Your task to perform on an android device: change the clock display to digital Image 0: 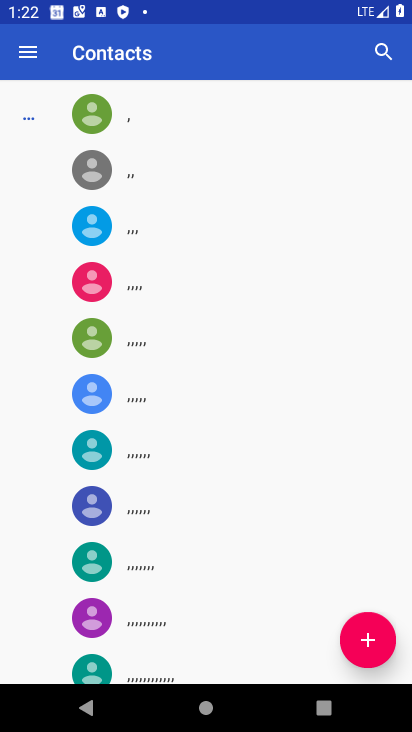
Step 0: press home button
Your task to perform on an android device: change the clock display to digital Image 1: 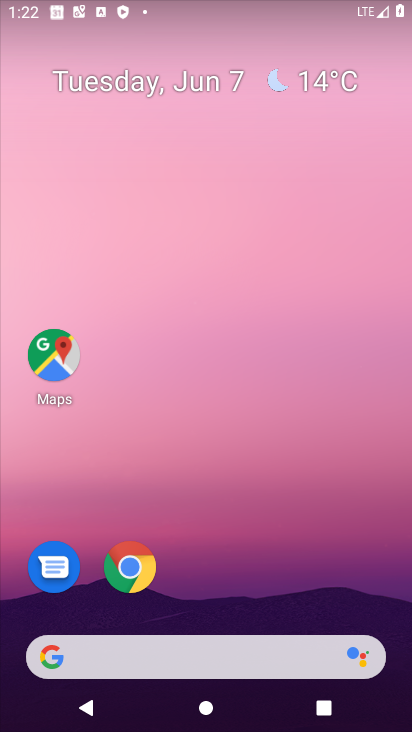
Step 1: drag from (188, 670) to (267, 5)
Your task to perform on an android device: change the clock display to digital Image 2: 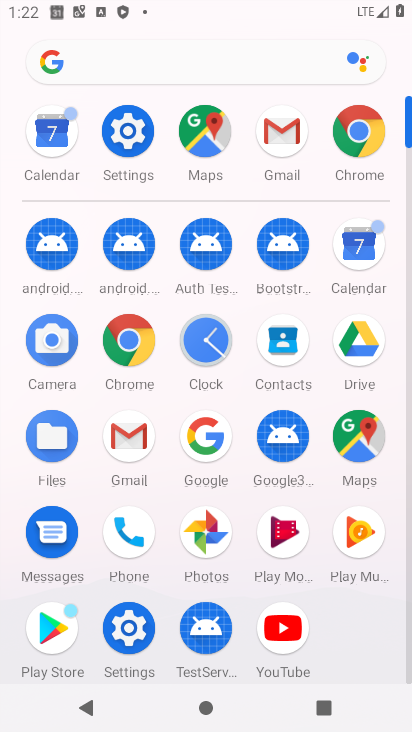
Step 2: click (193, 350)
Your task to perform on an android device: change the clock display to digital Image 3: 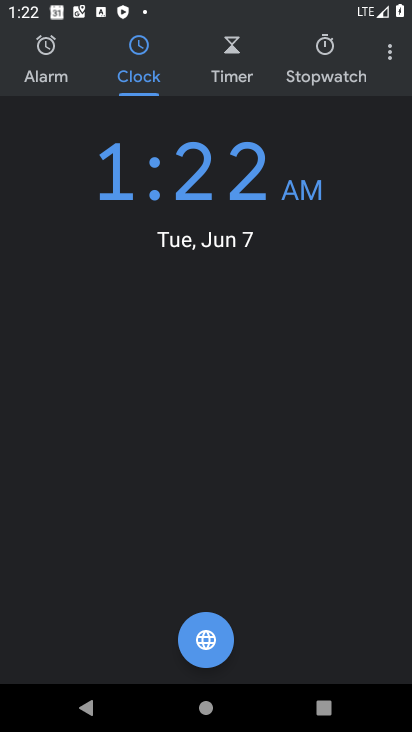
Step 3: click (386, 48)
Your task to perform on an android device: change the clock display to digital Image 4: 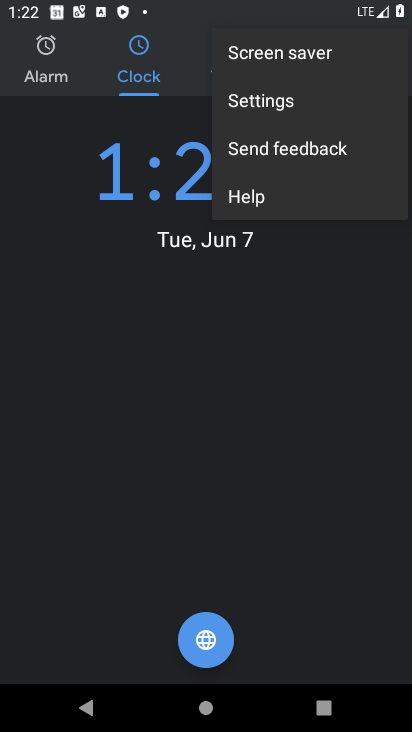
Step 4: click (290, 104)
Your task to perform on an android device: change the clock display to digital Image 5: 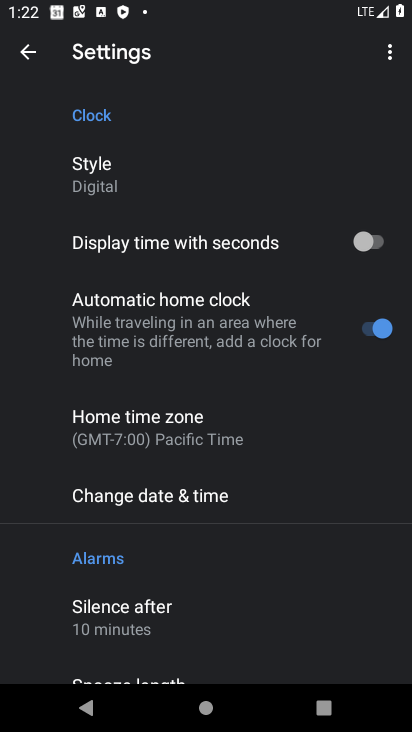
Step 5: task complete